Your task to perform on an android device: read, delete, or share a saved page in the chrome app Image 0: 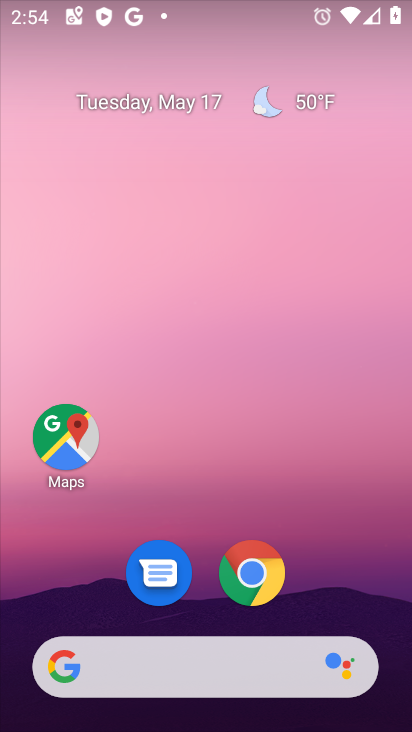
Step 0: click (247, 574)
Your task to perform on an android device: read, delete, or share a saved page in the chrome app Image 1: 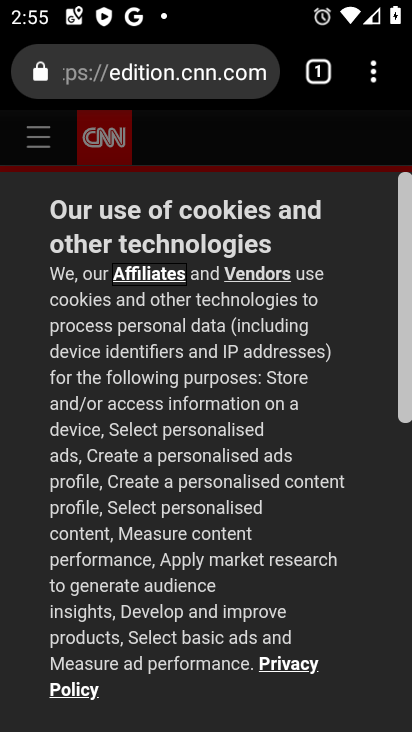
Step 1: task complete